Your task to perform on an android device: Open Yahoo.com Image 0: 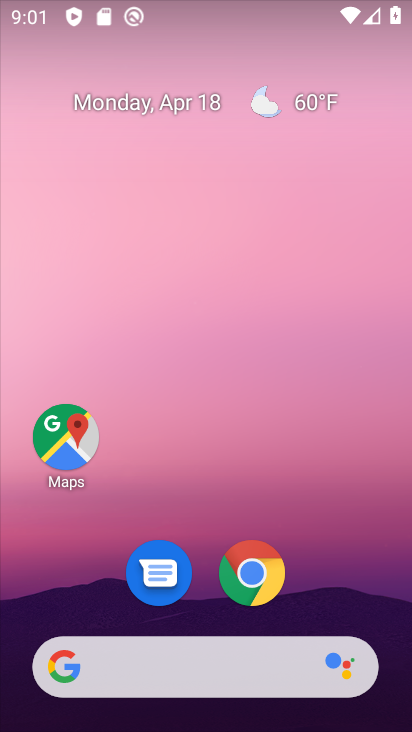
Step 0: click (248, 577)
Your task to perform on an android device: Open Yahoo.com Image 1: 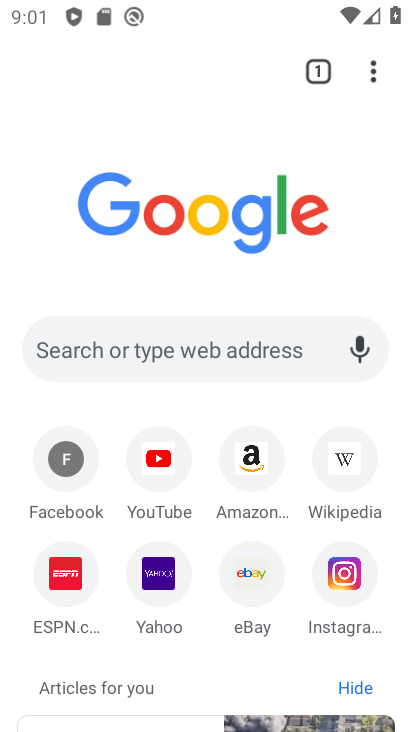
Step 1: click (159, 575)
Your task to perform on an android device: Open Yahoo.com Image 2: 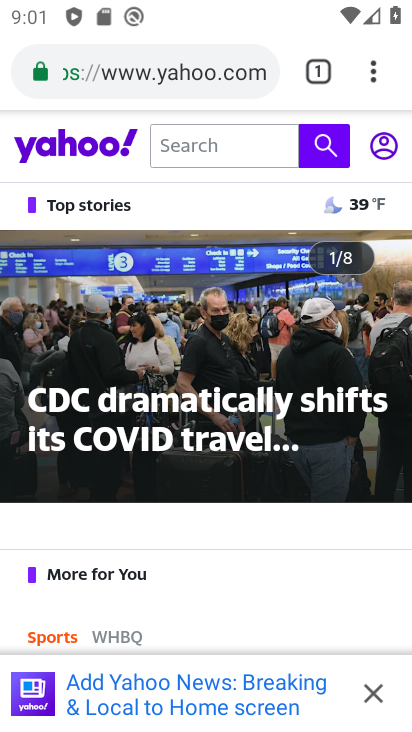
Step 2: task complete